Your task to perform on an android device: Find coffee shops on Maps Image 0: 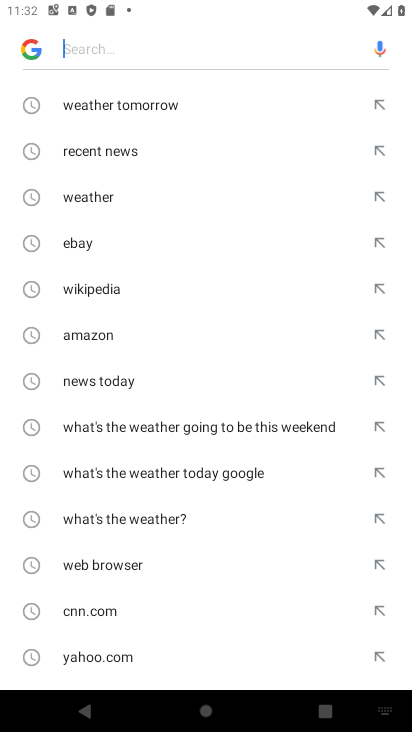
Step 0: press home button
Your task to perform on an android device: Find coffee shops on Maps Image 1: 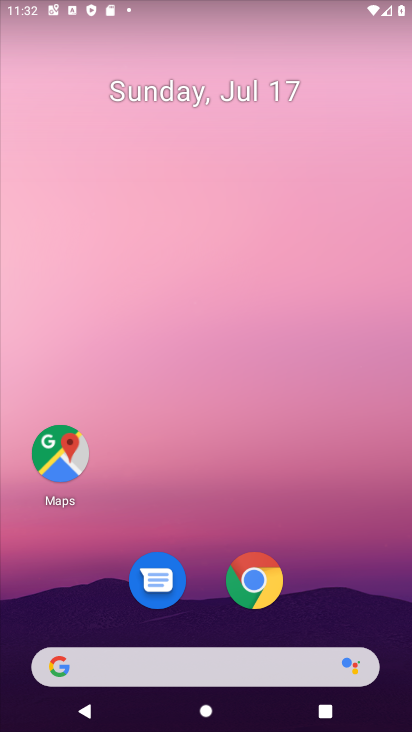
Step 1: drag from (235, 655) to (270, 360)
Your task to perform on an android device: Find coffee shops on Maps Image 2: 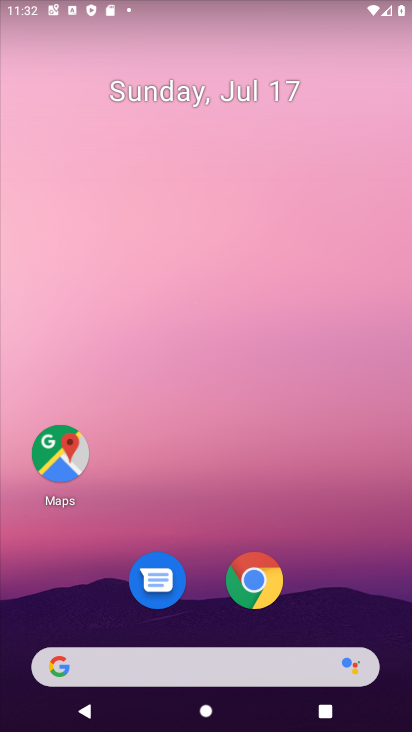
Step 2: drag from (221, 666) to (273, 83)
Your task to perform on an android device: Find coffee shops on Maps Image 3: 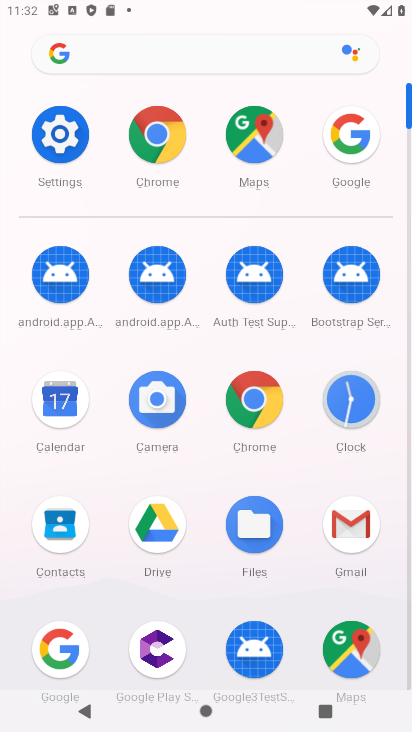
Step 3: click (344, 671)
Your task to perform on an android device: Find coffee shops on Maps Image 4: 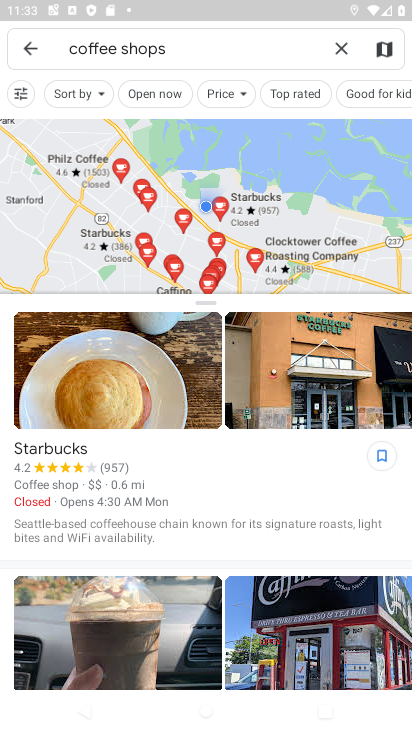
Step 4: task complete